Your task to perform on an android device: Go to privacy settings Image 0: 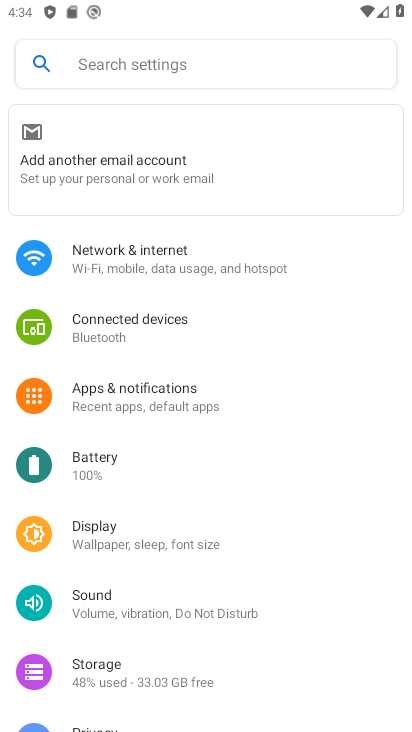
Step 0: drag from (184, 598) to (190, 353)
Your task to perform on an android device: Go to privacy settings Image 1: 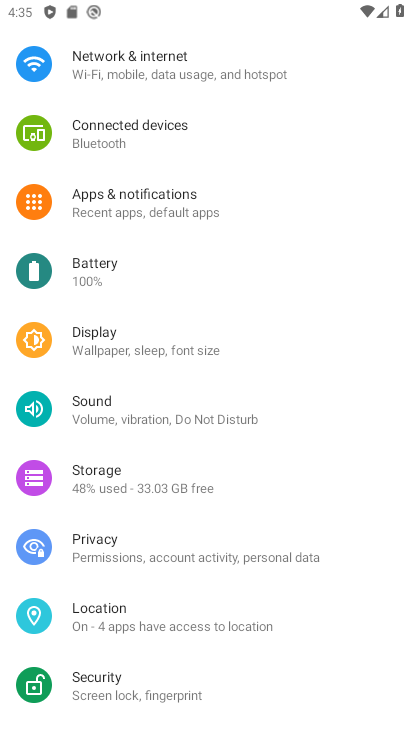
Step 1: click (110, 549)
Your task to perform on an android device: Go to privacy settings Image 2: 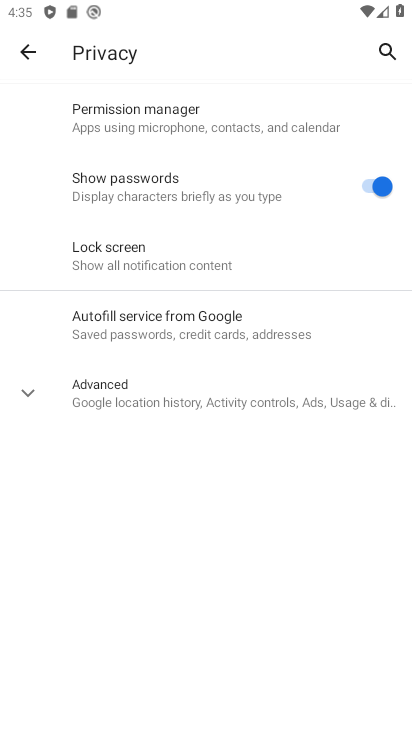
Step 2: press home button
Your task to perform on an android device: Go to privacy settings Image 3: 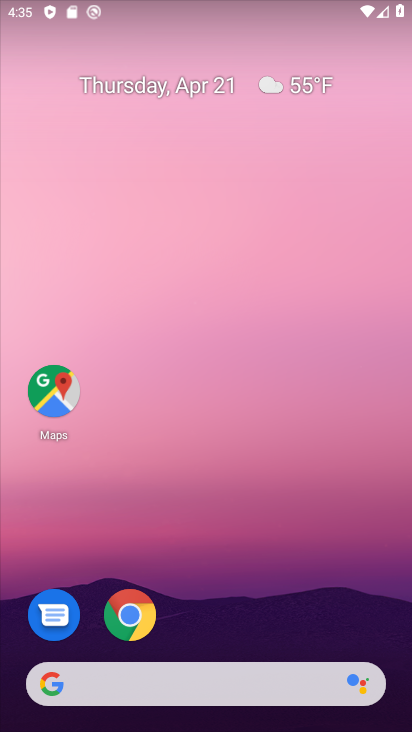
Step 3: click (138, 615)
Your task to perform on an android device: Go to privacy settings Image 4: 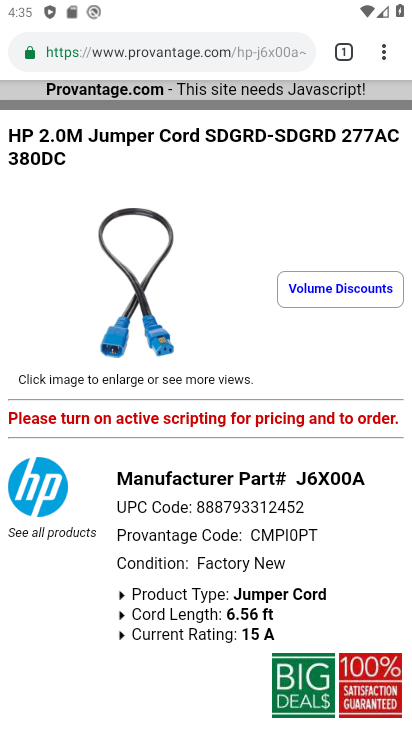
Step 4: drag from (388, 55) to (189, 674)
Your task to perform on an android device: Go to privacy settings Image 5: 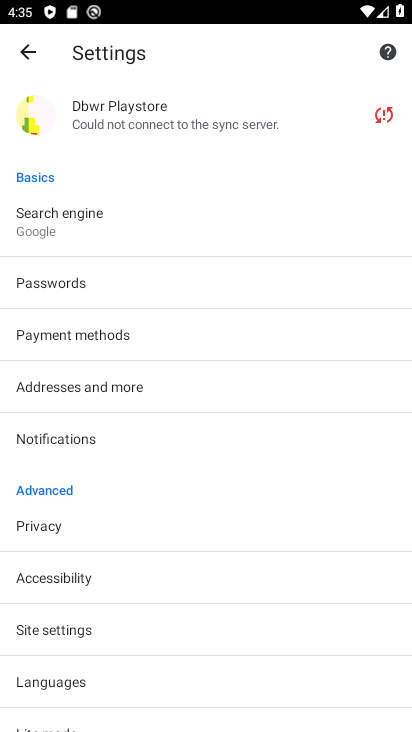
Step 5: click (83, 530)
Your task to perform on an android device: Go to privacy settings Image 6: 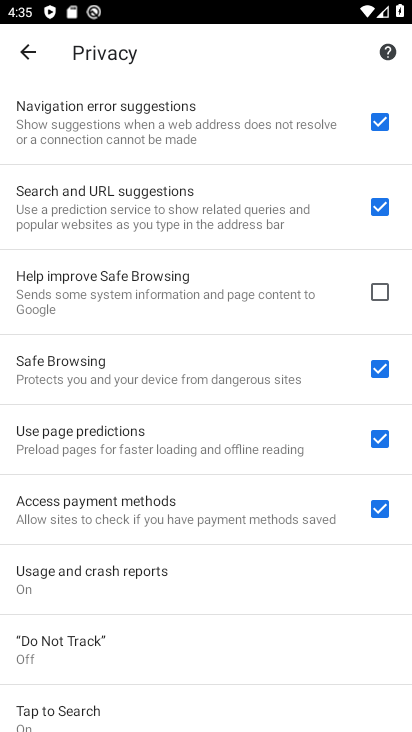
Step 6: task complete